Your task to perform on an android device: turn off notifications in google photos Image 0: 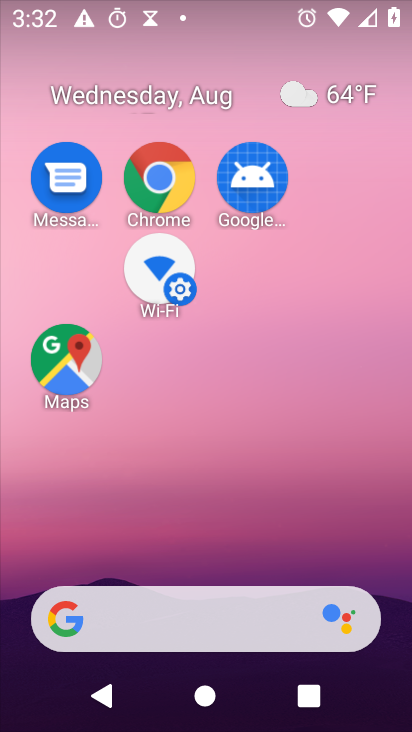
Step 0: drag from (267, 569) to (346, 11)
Your task to perform on an android device: turn off notifications in google photos Image 1: 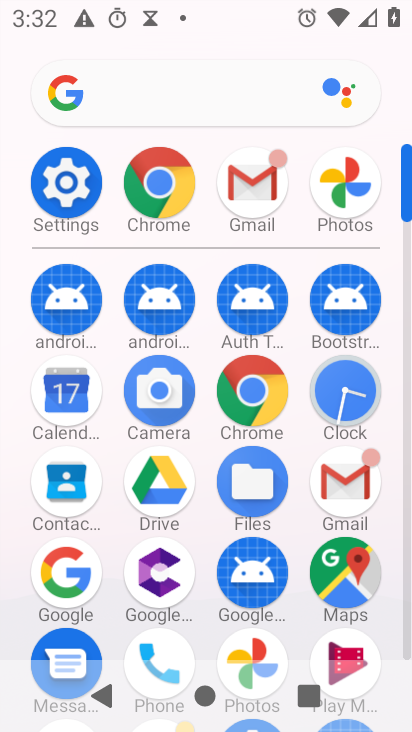
Step 1: click (245, 641)
Your task to perform on an android device: turn off notifications in google photos Image 2: 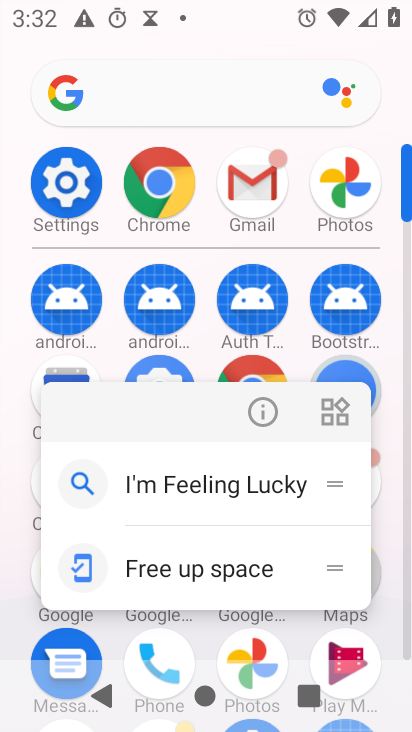
Step 2: click (243, 640)
Your task to perform on an android device: turn off notifications in google photos Image 3: 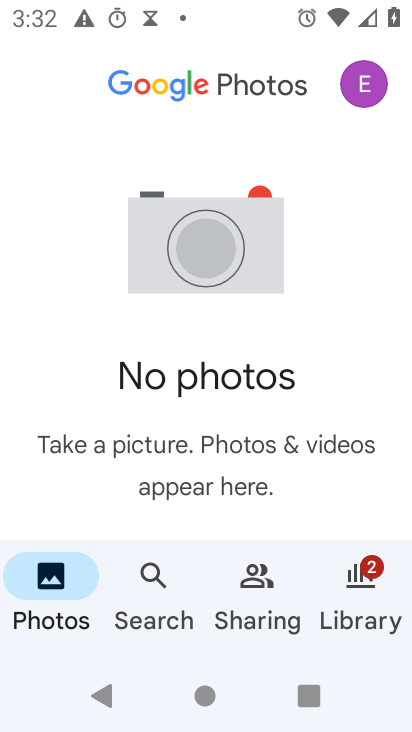
Step 3: click (374, 85)
Your task to perform on an android device: turn off notifications in google photos Image 4: 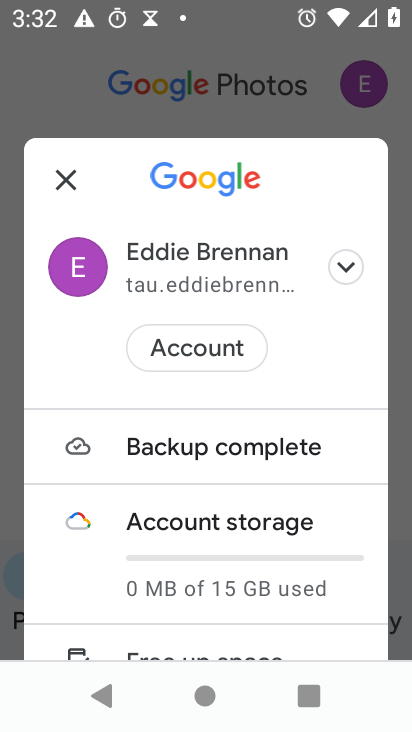
Step 4: drag from (362, 588) to (336, 211)
Your task to perform on an android device: turn off notifications in google photos Image 5: 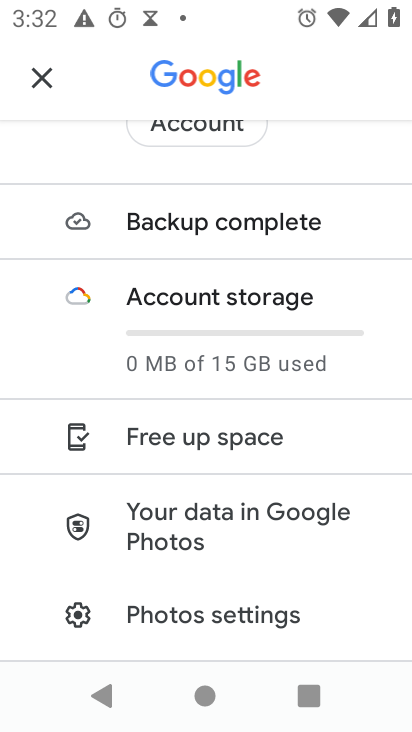
Step 5: click (198, 617)
Your task to perform on an android device: turn off notifications in google photos Image 6: 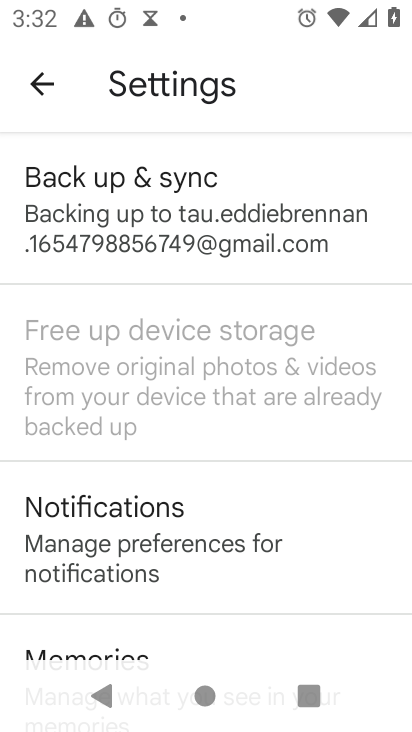
Step 6: click (90, 523)
Your task to perform on an android device: turn off notifications in google photos Image 7: 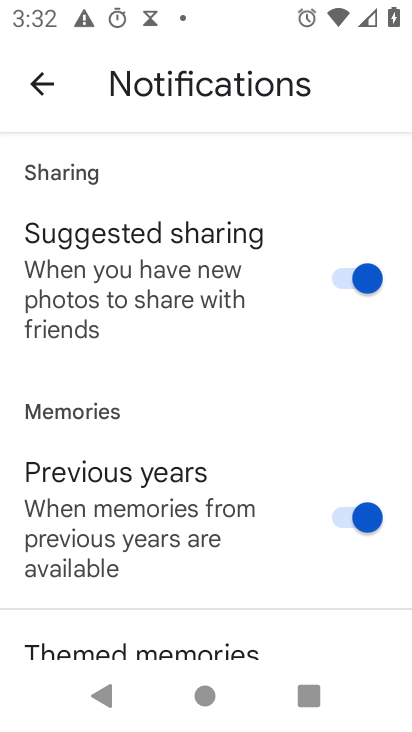
Step 7: click (373, 288)
Your task to perform on an android device: turn off notifications in google photos Image 8: 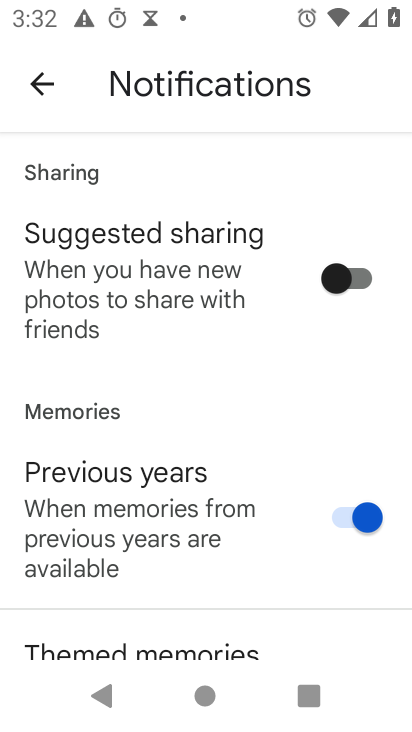
Step 8: task complete